Your task to perform on an android device: open app "Facebook Lite" (install if not already installed) and enter user name: "suppers@inbox.com" and password: "downplayed" Image 0: 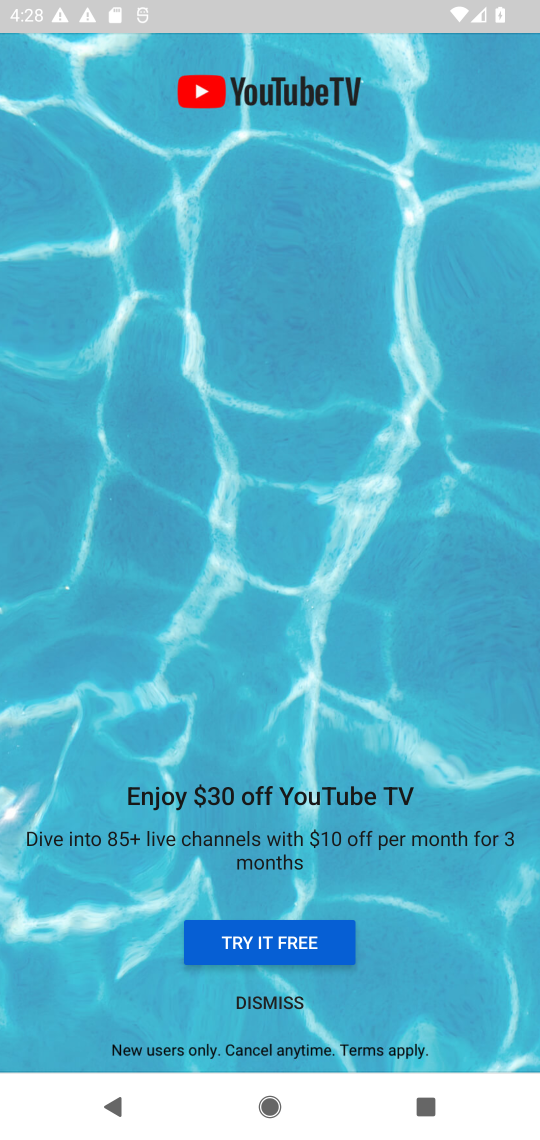
Step 0: press home button
Your task to perform on an android device: open app "Facebook Lite" (install if not already installed) and enter user name: "suppers@inbox.com" and password: "downplayed" Image 1: 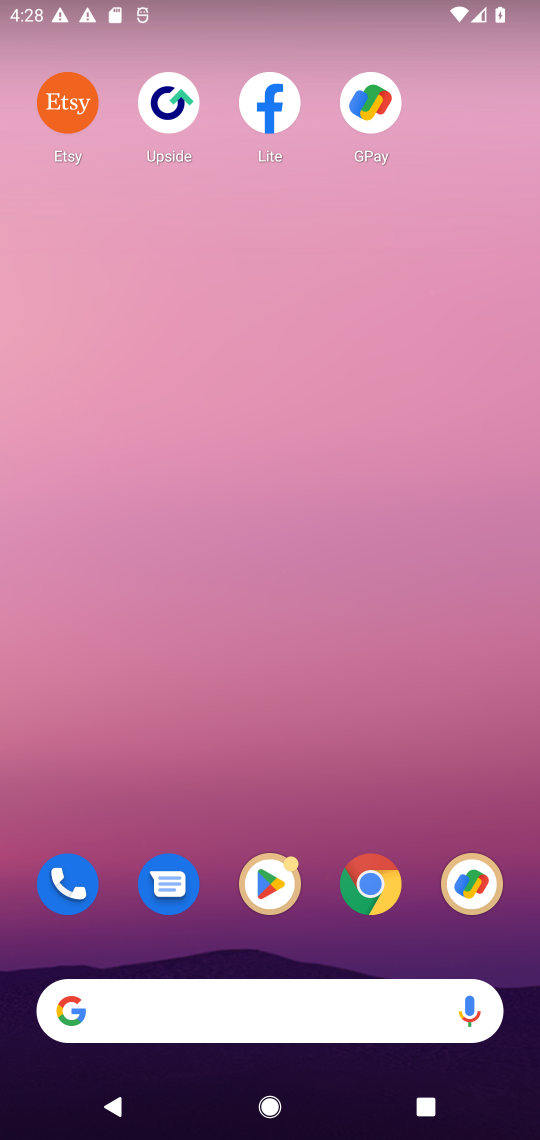
Step 1: click (266, 891)
Your task to perform on an android device: open app "Facebook Lite" (install if not already installed) and enter user name: "suppers@inbox.com" and password: "downplayed" Image 2: 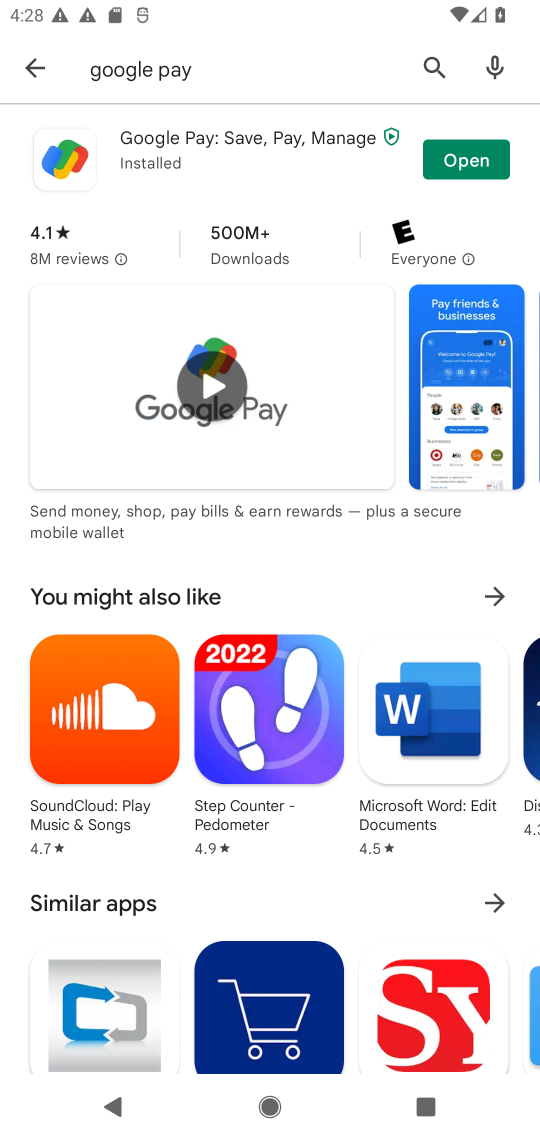
Step 2: click (23, 63)
Your task to perform on an android device: open app "Facebook Lite" (install if not already installed) and enter user name: "suppers@inbox.com" and password: "downplayed" Image 3: 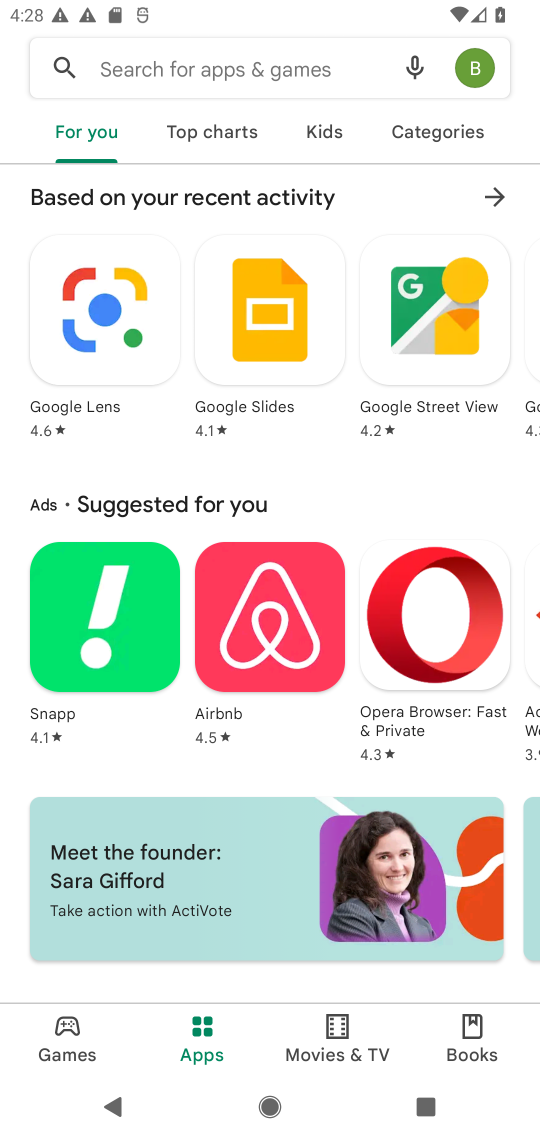
Step 3: click (276, 63)
Your task to perform on an android device: open app "Facebook Lite" (install if not already installed) and enter user name: "suppers@inbox.com" and password: "downplayed" Image 4: 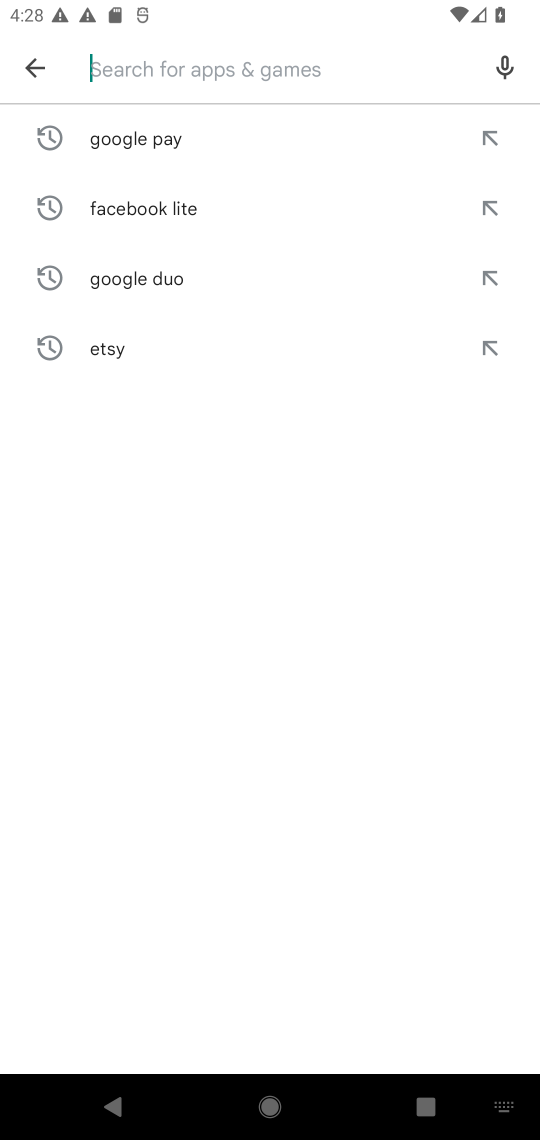
Step 4: type "Facebook Lite"
Your task to perform on an android device: open app "Facebook Lite" (install if not already installed) and enter user name: "suppers@inbox.com" and password: "downplayed" Image 5: 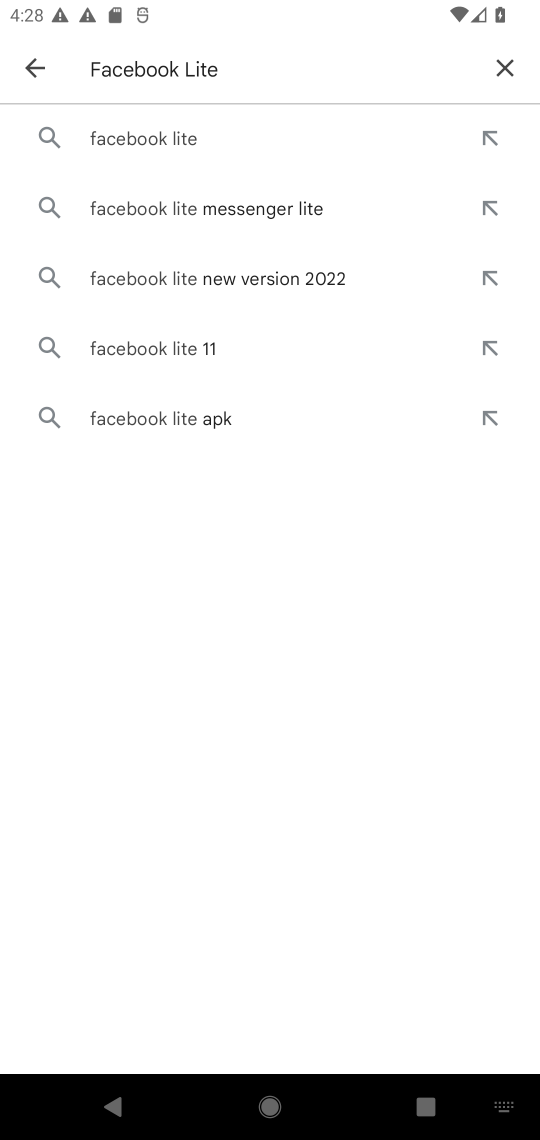
Step 5: click (140, 136)
Your task to perform on an android device: open app "Facebook Lite" (install if not already installed) and enter user name: "suppers@inbox.com" and password: "downplayed" Image 6: 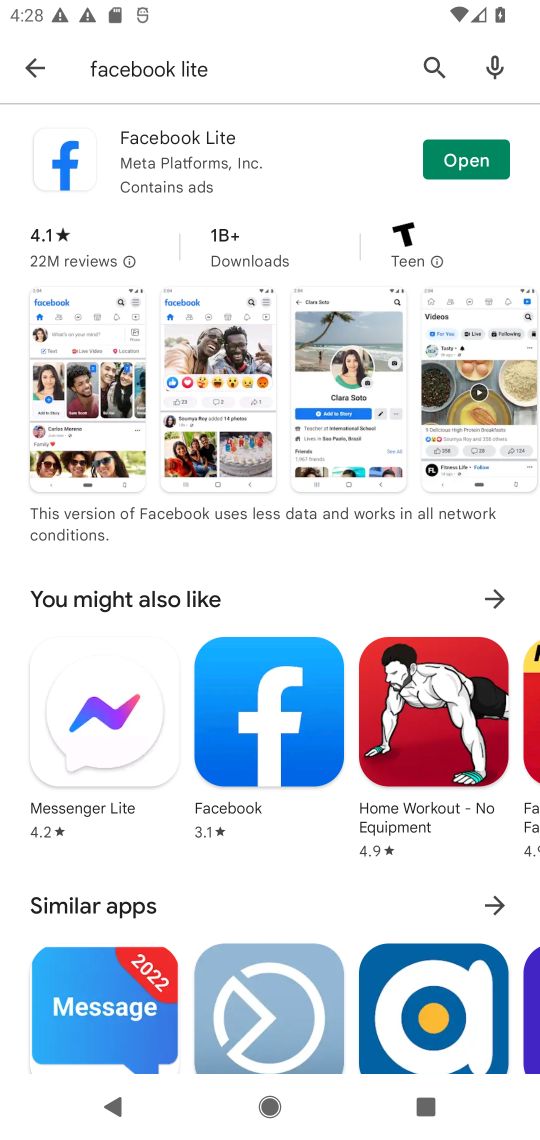
Step 6: click (447, 154)
Your task to perform on an android device: open app "Facebook Lite" (install if not already installed) and enter user name: "suppers@inbox.com" and password: "downplayed" Image 7: 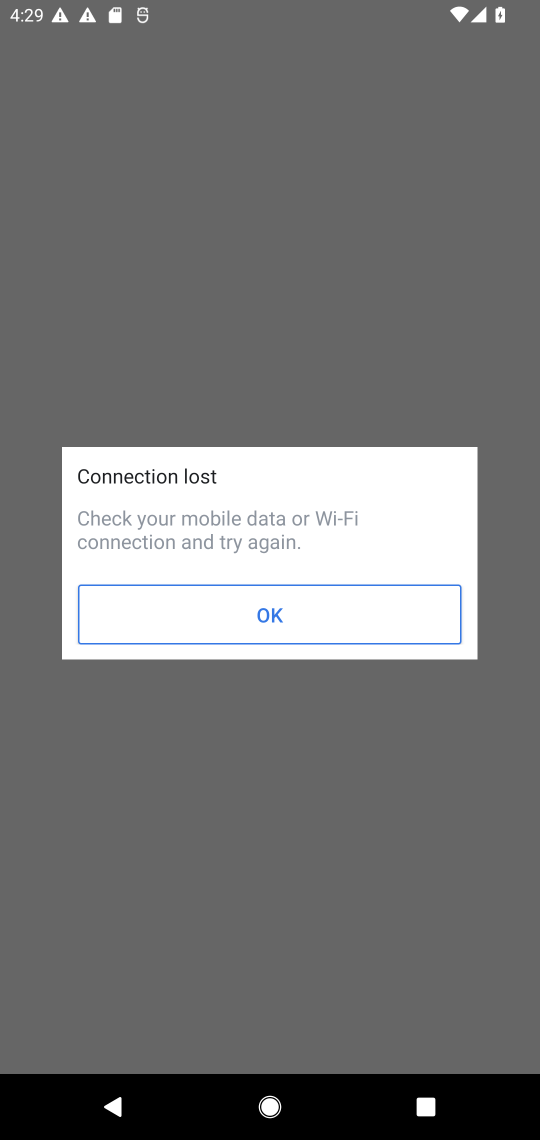
Step 7: task complete